Your task to perform on an android device: Clear the shopping cart on ebay. Add "asus zenbook" to the cart on ebay Image 0: 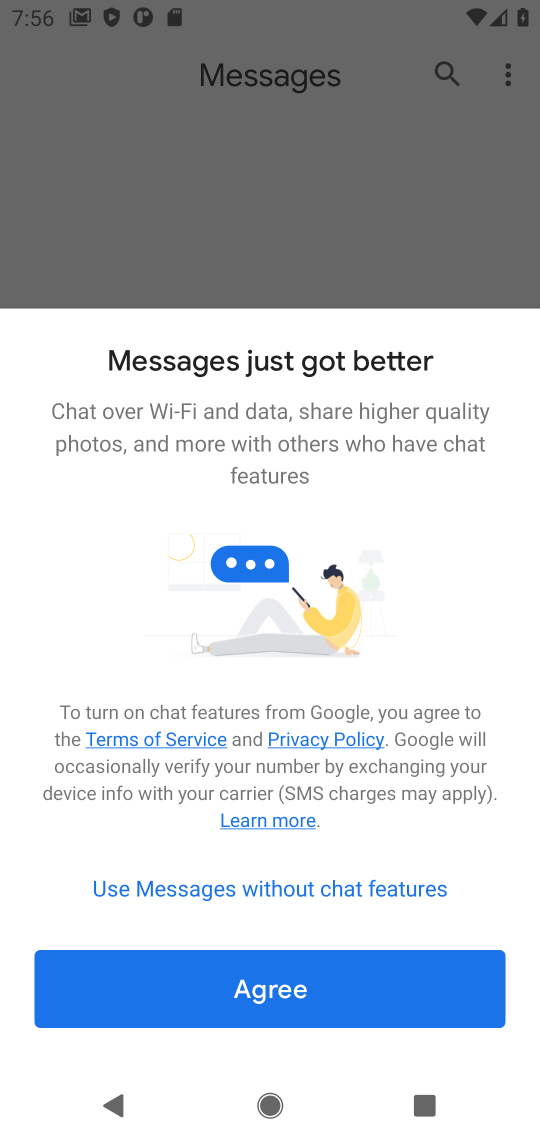
Step 0: press home button
Your task to perform on an android device: Clear the shopping cart on ebay. Add "asus zenbook" to the cart on ebay Image 1: 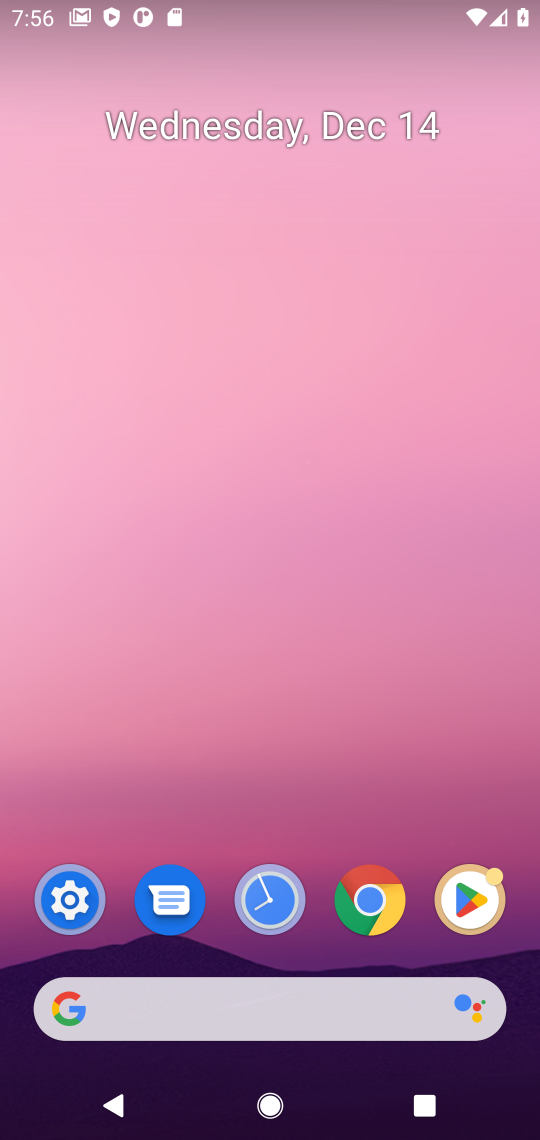
Step 1: click (369, 903)
Your task to perform on an android device: Clear the shopping cart on ebay. Add "asus zenbook" to the cart on ebay Image 2: 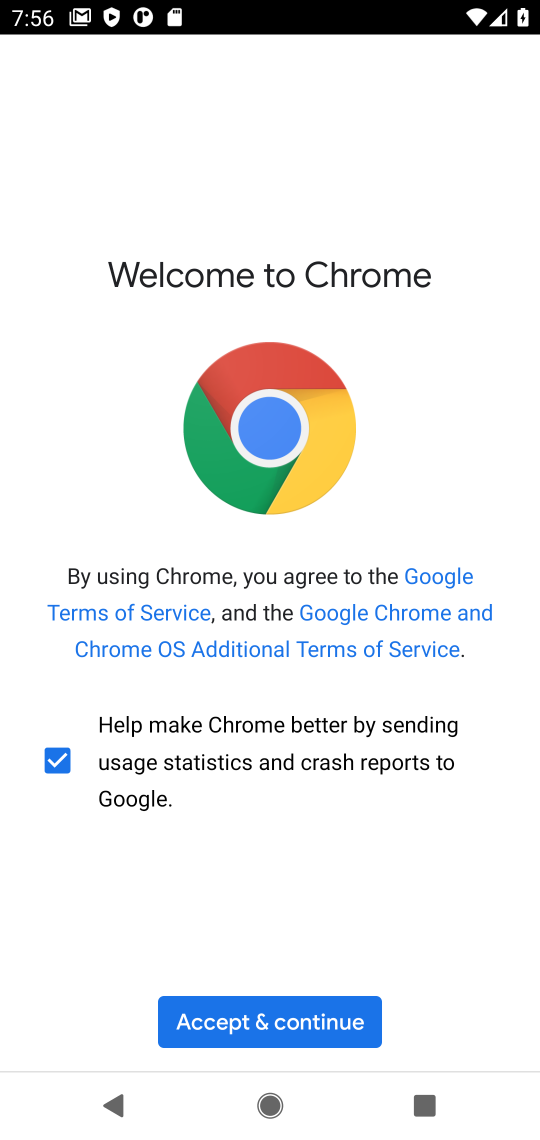
Step 2: click (239, 1030)
Your task to perform on an android device: Clear the shopping cart on ebay. Add "asus zenbook" to the cart on ebay Image 3: 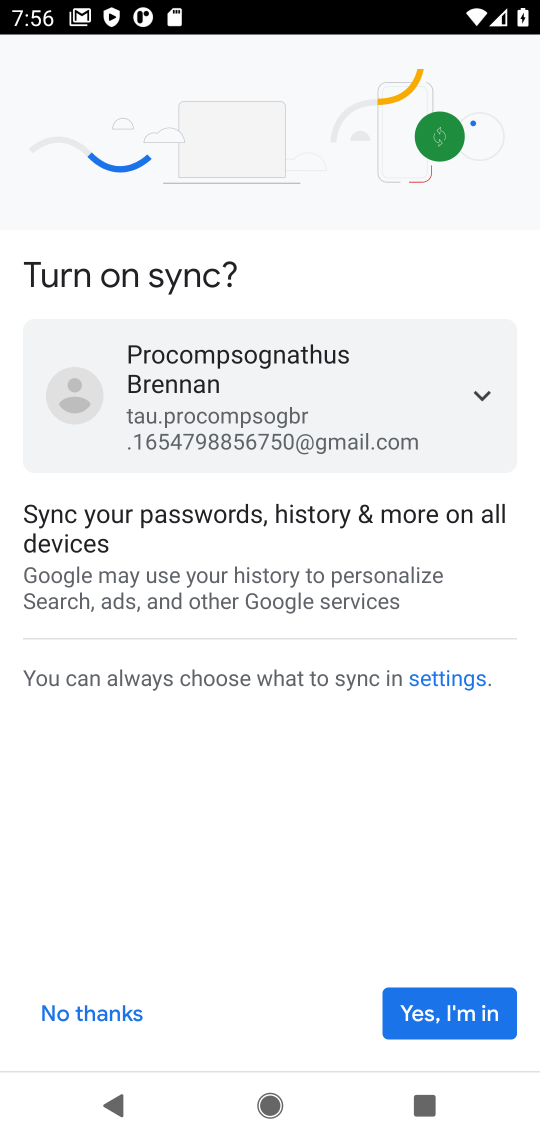
Step 3: click (112, 1019)
Your task to perform on an android device: Clear the shopping cart on ebay. Add "asus zenbook" to the cart on ebay Image 4: 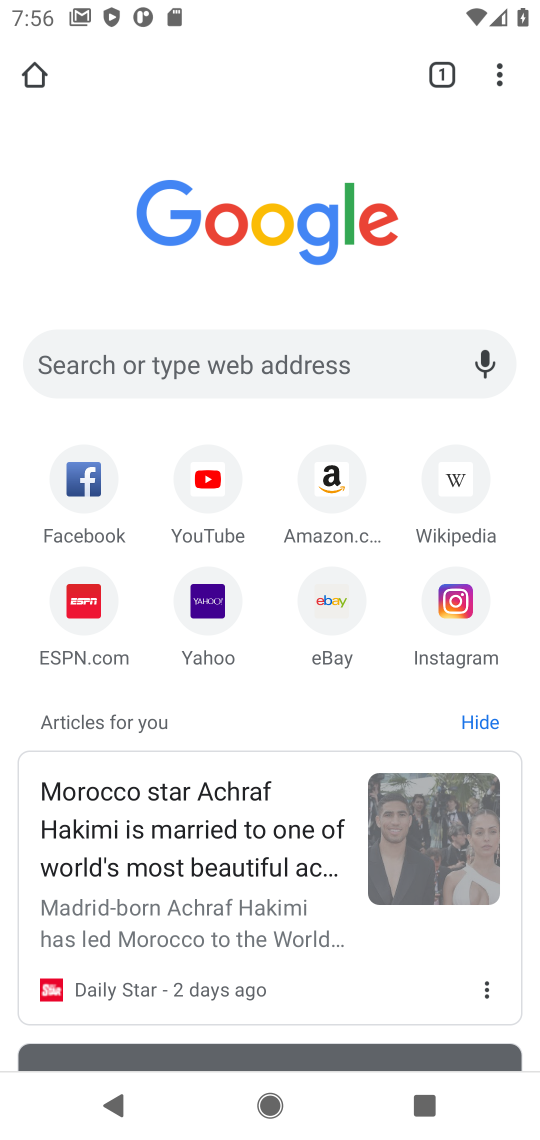
Step 4: click (334, 605)
Your task to perform on an android device: Clear the shopping cart on ebay. Add "asus zenbook" to the cart on ebay Image 5: 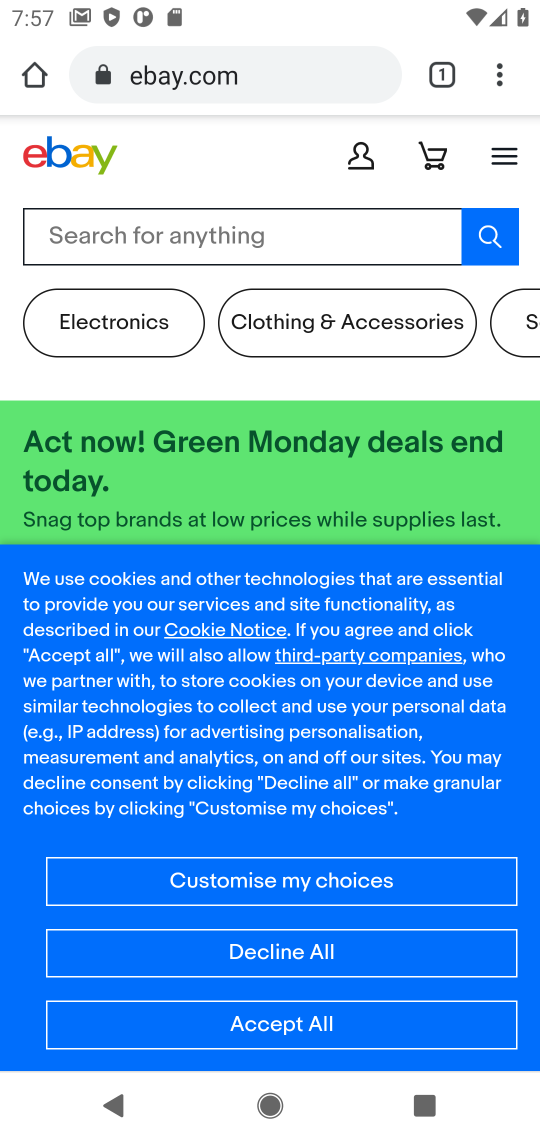
Step 5: click (432, 158)
Your task to perform on an android device: Clear the shopping cart on ebay. Add "asus zenbook" to the cart on ebay Image 6: 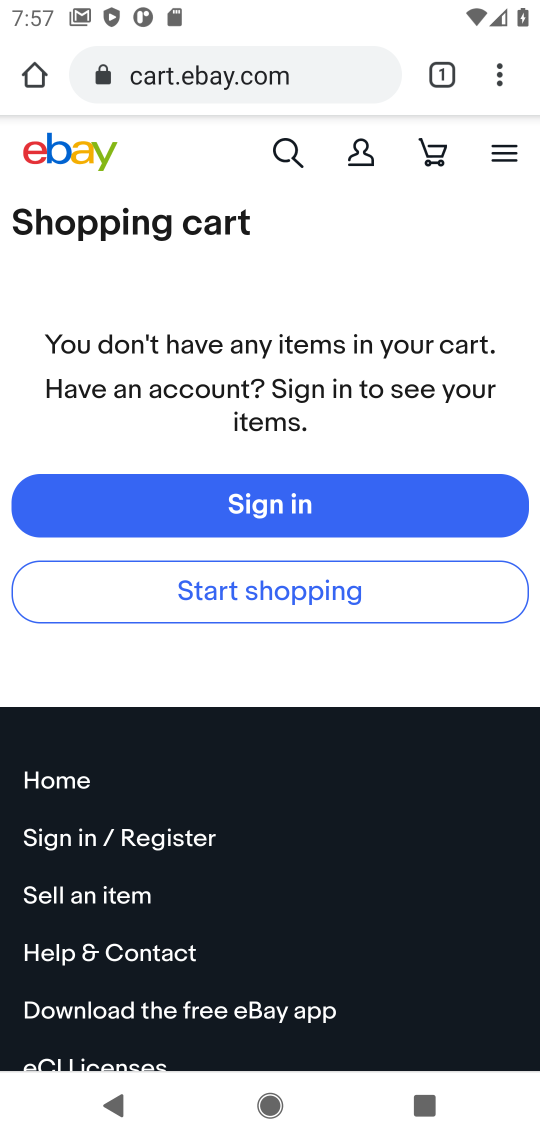
Step 6: click (279, 153)
Your task to perform on an android device: Clear the shopping cart on ebay. Add "asus zenbook" to the cart on ebay Image 7: 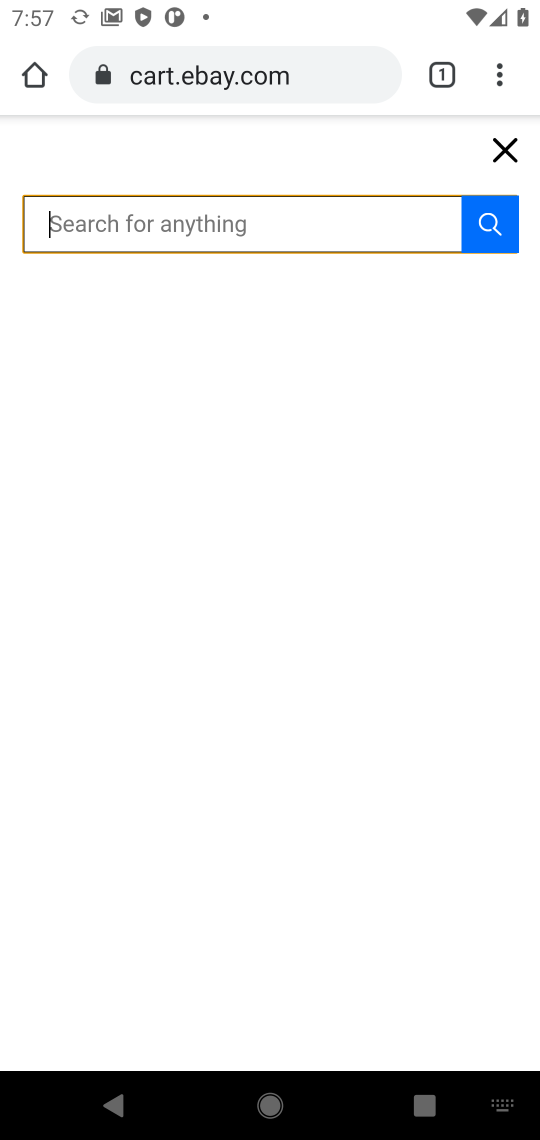
Step 7: type "asus zenbook"
Your task to perform on an android device: Clear the shopping cart on ebay. Add "asus zenbook" to the cart on ebay Image 8: 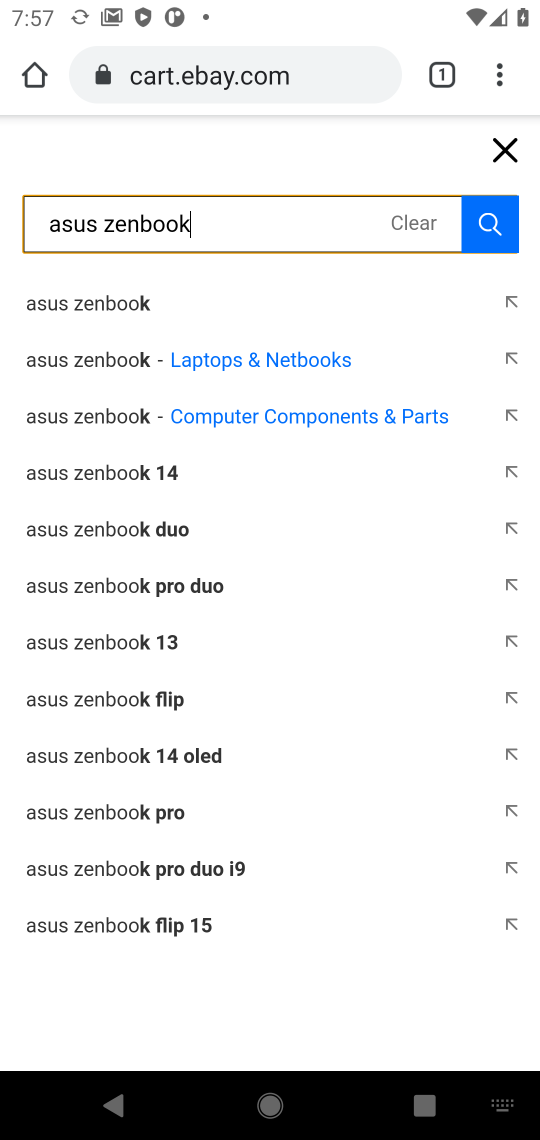
Step 8: click (104, 304)
Your task to perform on an android device: Clear the shopping cart on ebay. Add "asus zenbook" to the cart on ebay Image 9: 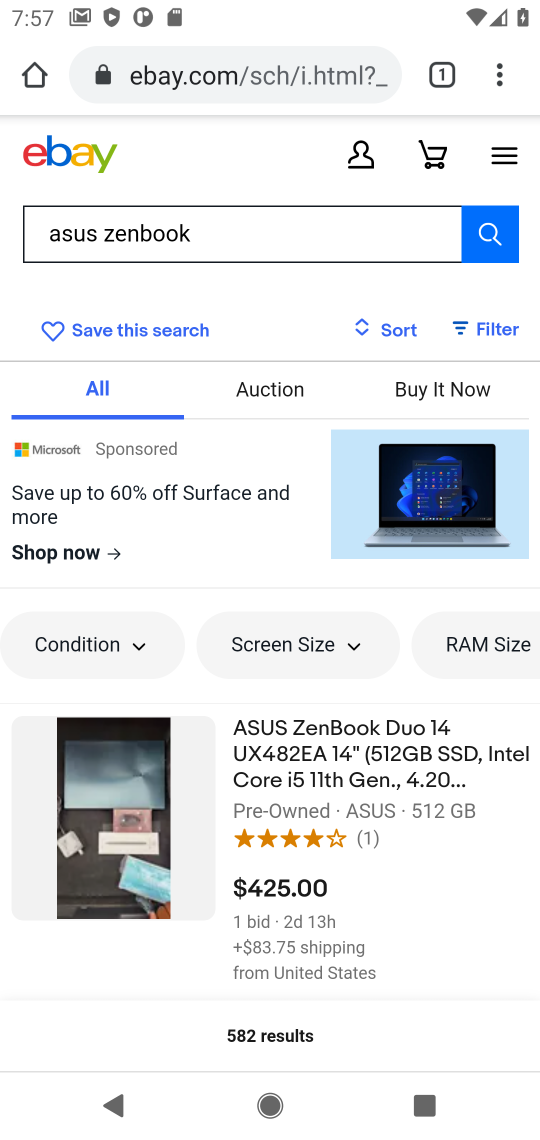
Step 9: click (269, 815)
Your task to perform on an android device: Clear the shopping cart on ebay. Add "asus zenbook" to the cart on ebay Image 10: 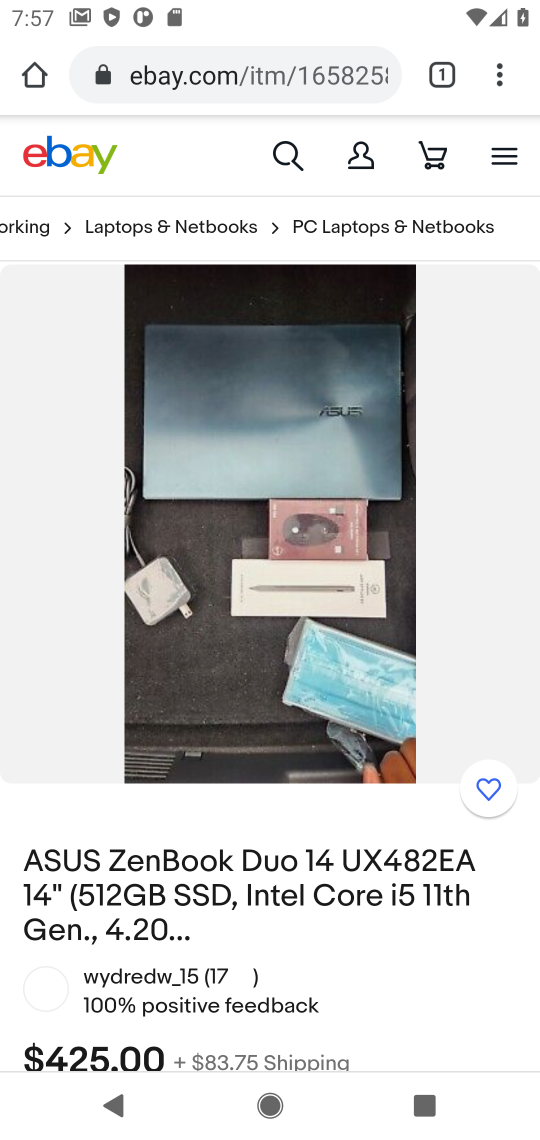
Step 10: press back button
Your task to perform on an android device: Clear the shopping cart on ebay. Add "asus zenbook" to the cart on ebay Image 11: 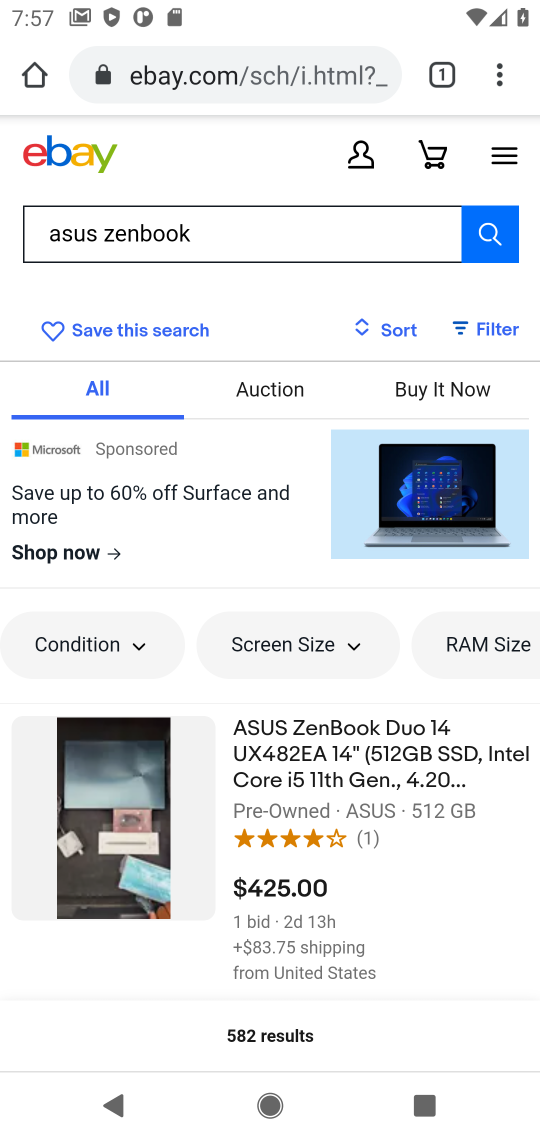
Step 11: drag from (291, 875) to (315, 286)
Your task to perform on an android device: Clear the shopping cart on ebay. Add "asus zenbook" to the cart on ebay Image 12: 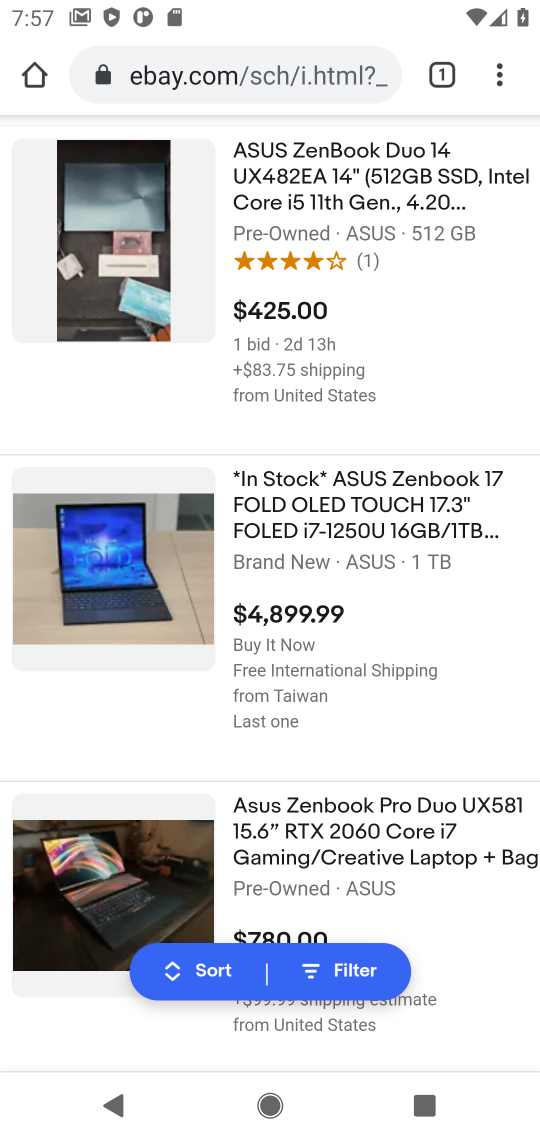
Step 12: click (310, 510)
Your task to perform on an android device: Clear the shopping cart on ebay. Add "asus zenbook" to the cart on ebay Image 13: 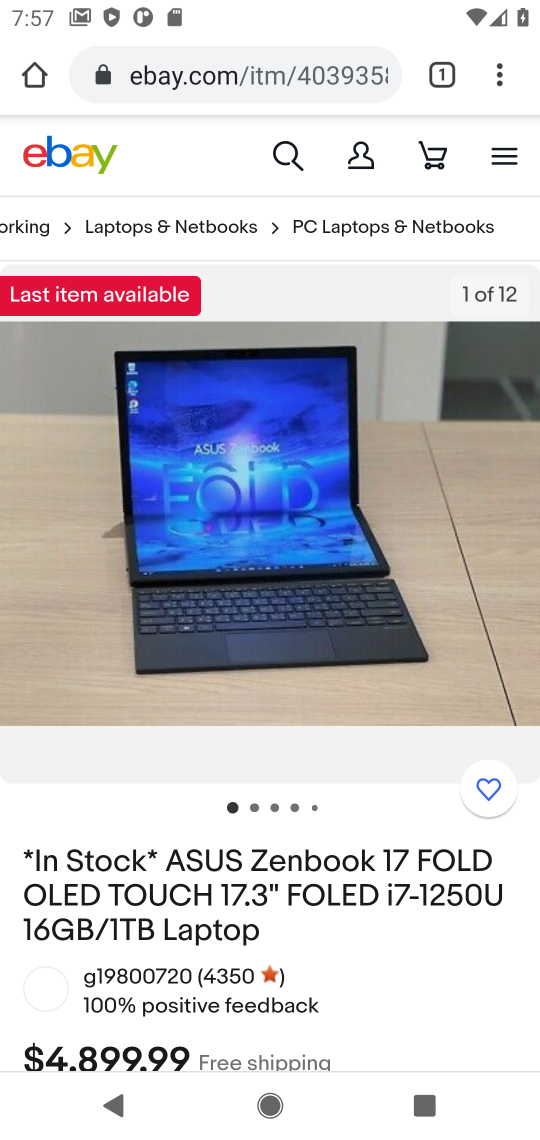
Step 13: drag from (241, 822) to (224, 255)
Your task to perform on an android device: Clear the shopping cart on ebay. Add "asus zenbook" to the cart on ebay Image 14: 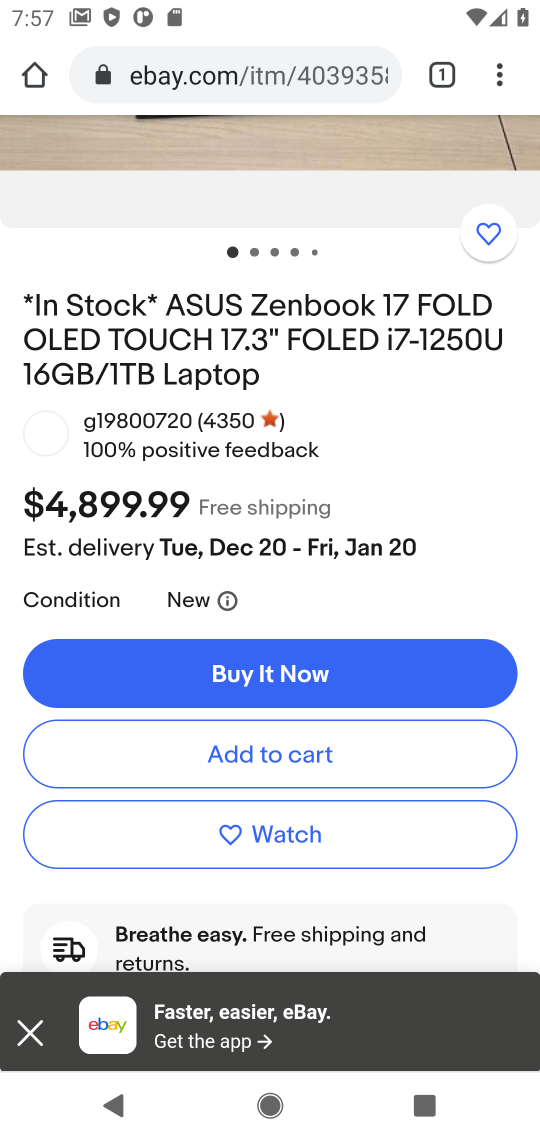
Step 14: click (228, 744)
Your task to perform on an android device: Clear the shopping cart on ebay. Add "asus zenbook" to the cart on ebay Image 15: 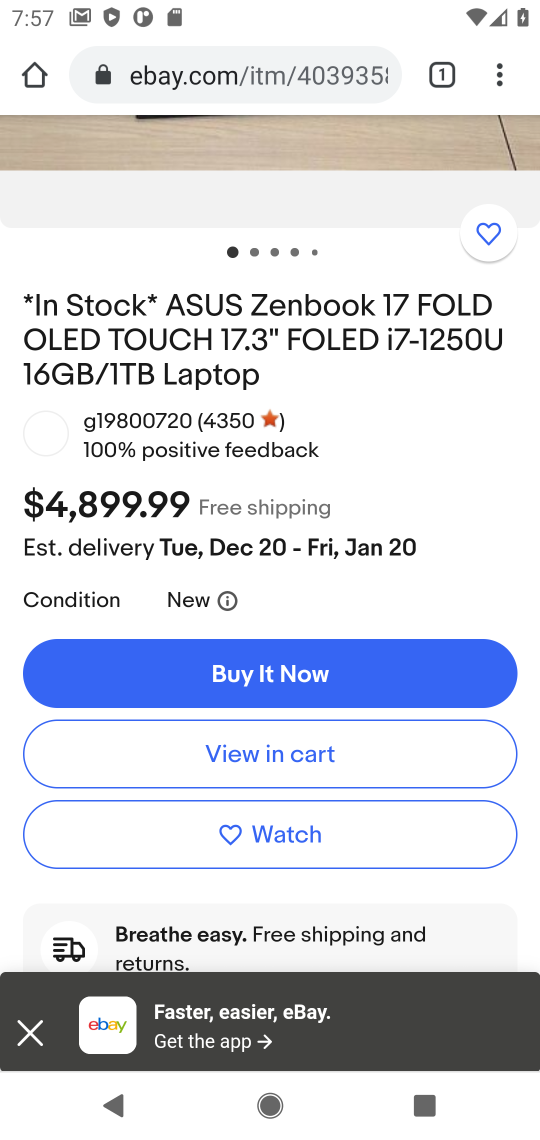
Step 15: task complete